Your task to perform on an android device: turn off priority inbox in the gmail app Image 0: 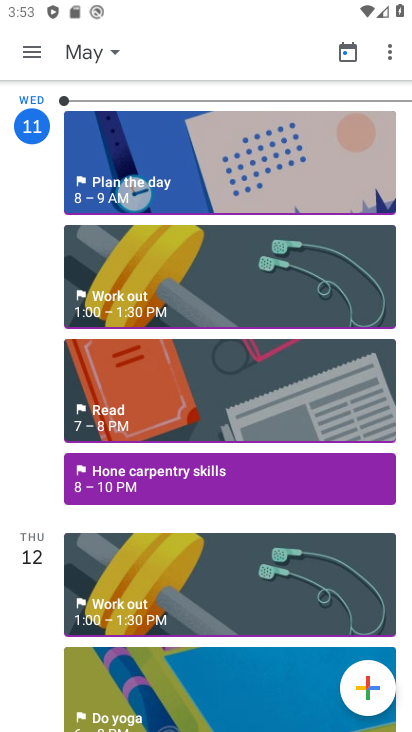
Step 0: press back button
Your task to perform on an android device: turn off priority inbox in the gmail app Image 1: 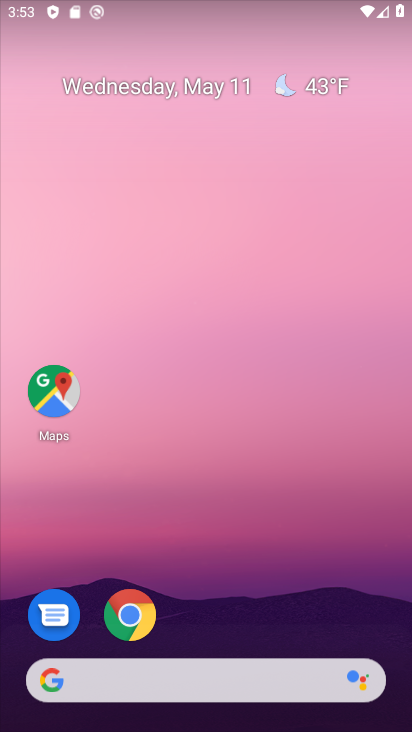
Step 1: drag from (246, 542) to (187, 68)
Your task to perform on an android device: turn off priority inbox in the gmail app Image 2: 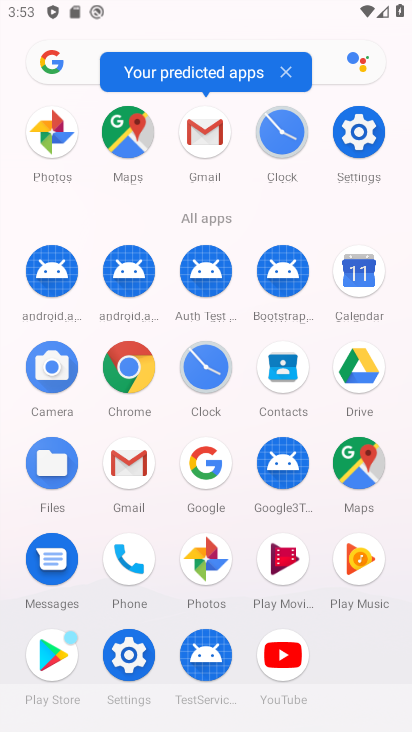
Step 2: drag from (4, 579) to (5, 255)
Your task to perform on an android device: turn off priority inbox in the gmail app Image 3: 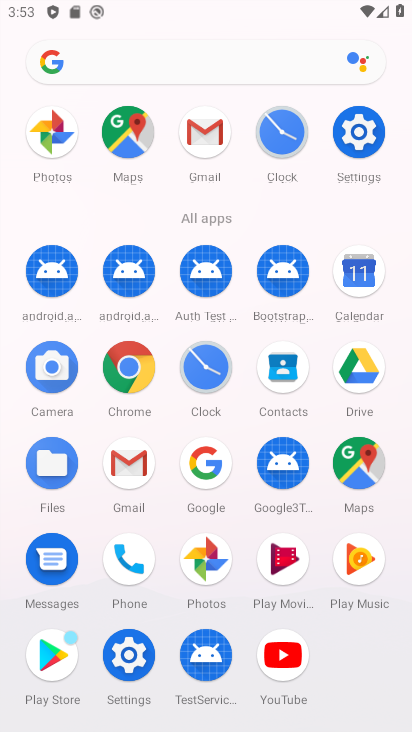
Step 3: click (126, 462)
Your task to perform on an android device: turn off priority inbox in the gmail app Image 4: 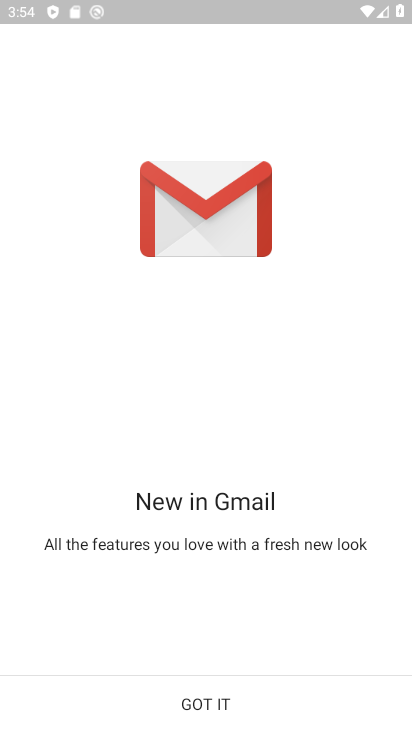
Step 4: click (183, 702)
Your task to perform on an android device: turn off priority inbox in the gmail app Image 5: 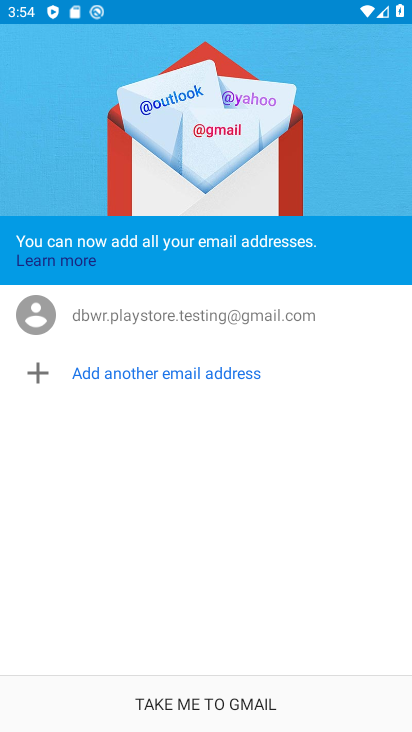
Step 5: click (183, 702)
Your task to perform on an android device: turn off priority inbox in the gmail app Image 6: 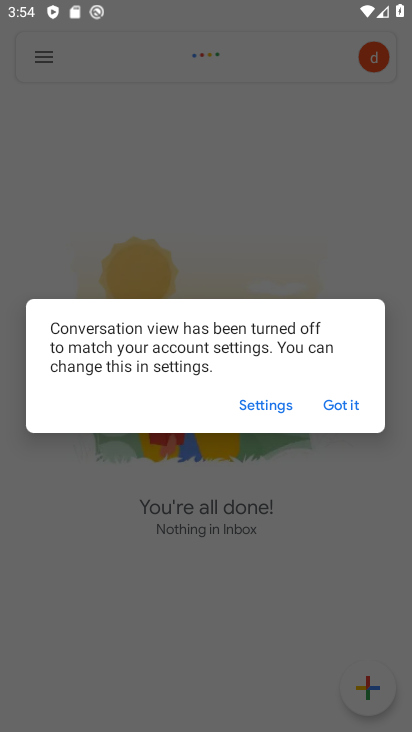
Step 6: click (338, 406)
Your task to perform on an android device: turn off priority inbox in the gmail app Image 7: 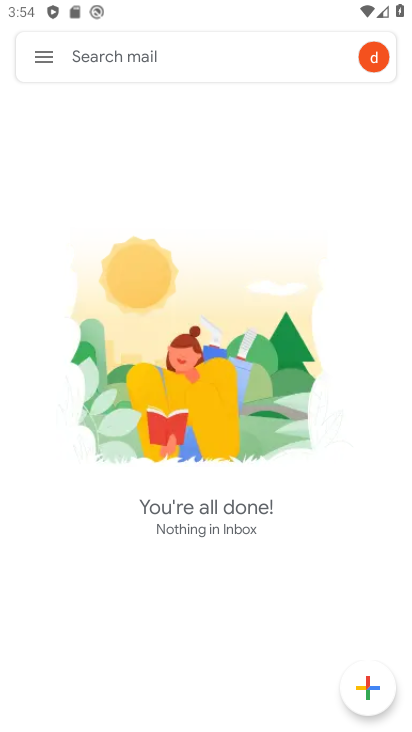
Step 7: click (36, 62)
Your task to perform on an android device: turn off priority inbox in the gmail app Image 8: 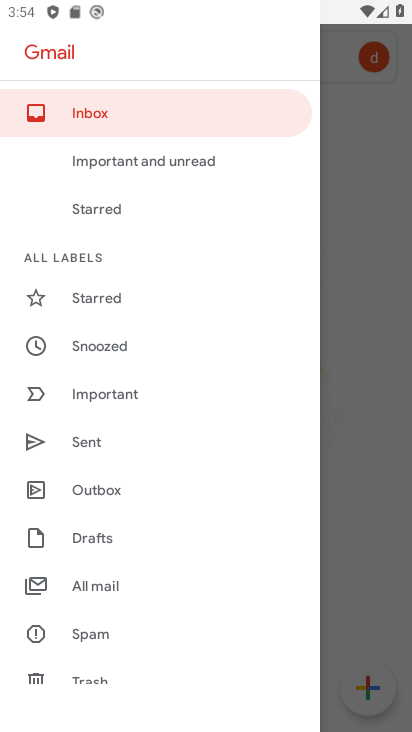
Step 8: drag from (197, 654) to (143, 191)
Your task to perform on an android device: turn off priority inbox in the gmail app Image 9: 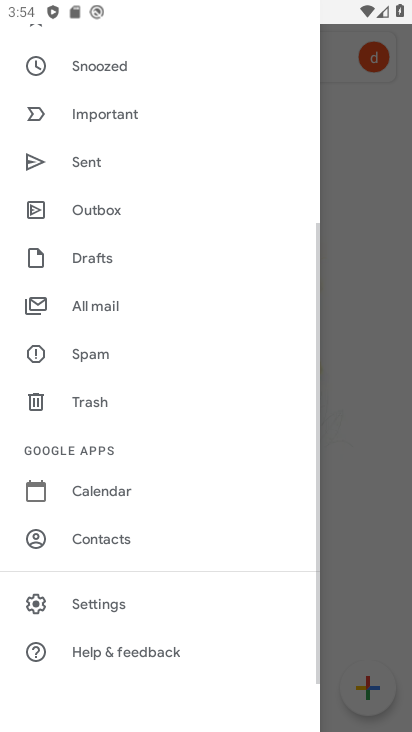
Step 9: click (109, 597)
Your task to perform on an android device: turn off priority inbox in the gmail app Image 10: 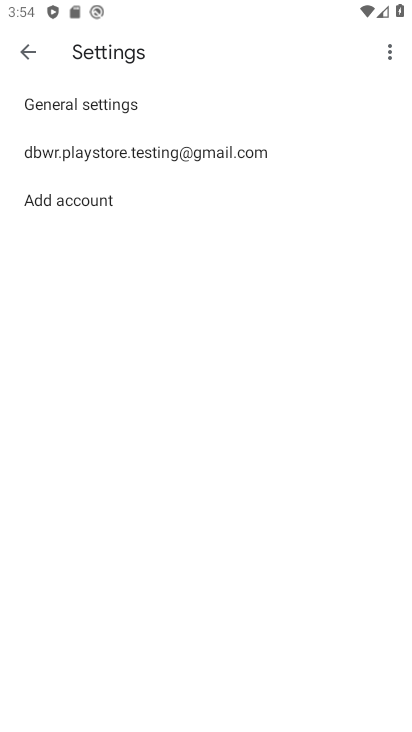
Step 10: click (107, 150)
Your task to perform on an android device: turn off priority inbox in the gmail app Image 11: 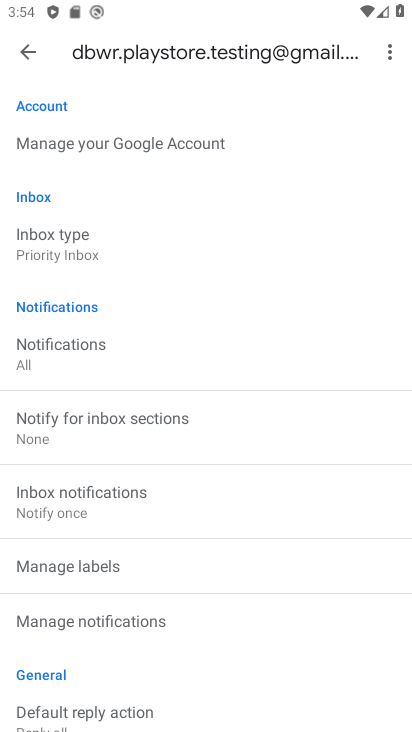
Step 11: click (111, 242)
Your task to perform on an android device: turn off priority inbox in the gmail app Image 12: 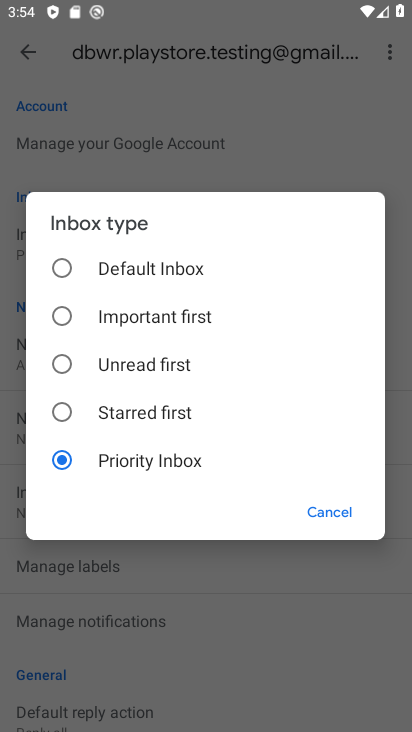
Step 12: click (111, 264)
Your task to perform on an android device: turn off priority inbox in the gmail app Image 13: 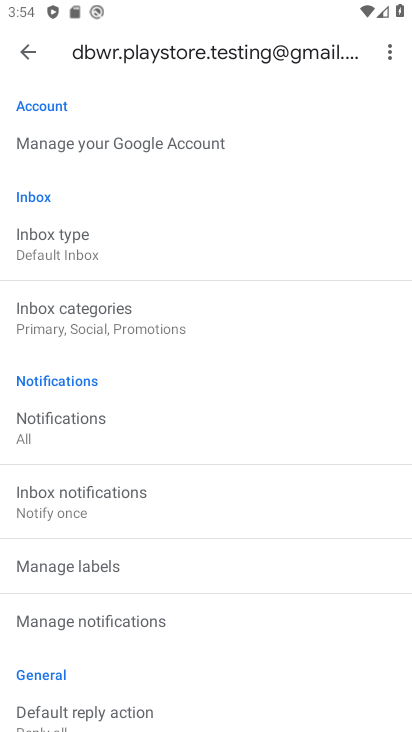
Step 13: task complete